Your task to perform on an android device: Go to Yahoo.com Image 0: 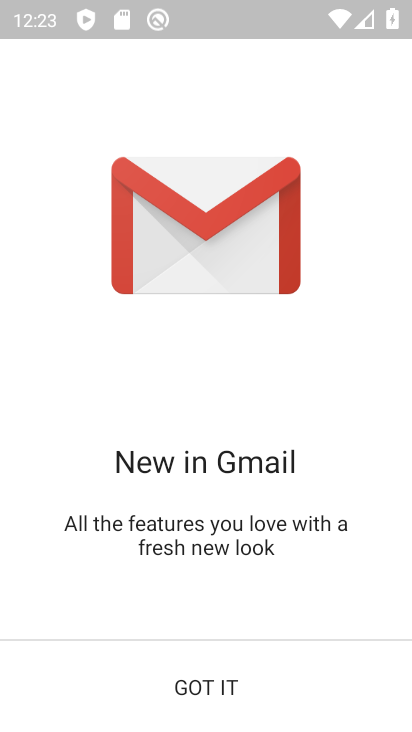
Step 0: press home button
Your task to perform on an android device: Go to Yahoo.com Image 1: 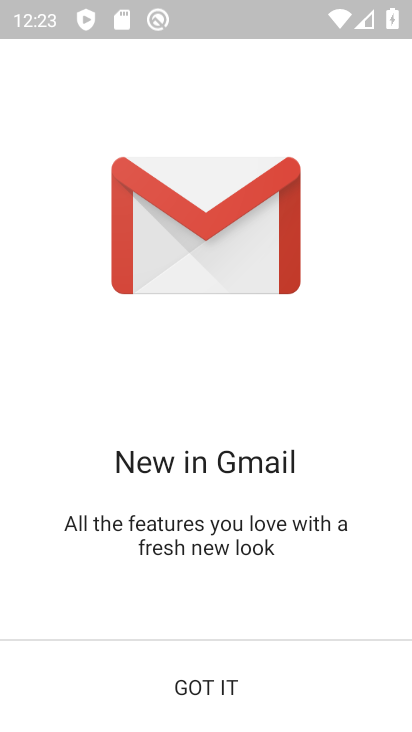
Step 1: press home button
Your task to perform on an android device: Go to Yahoo.com Image 2: 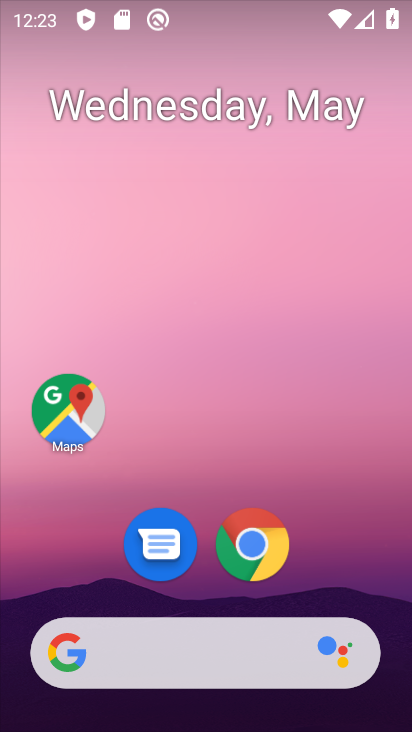
Step 2: click (262, 537)
Your task to perform on an android device: Go to Yahoo.com Image 3: 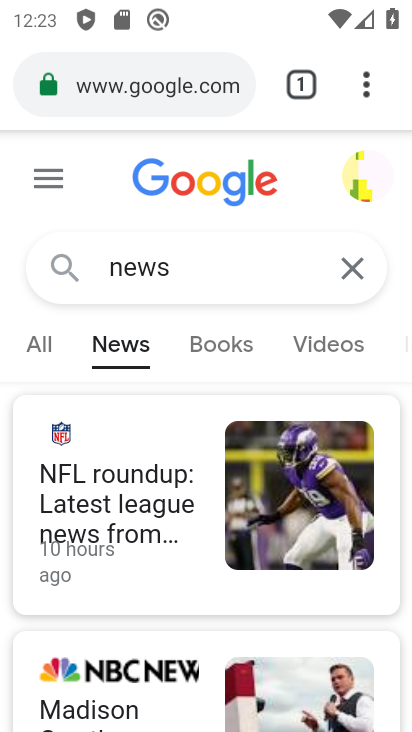
Step 3: click (105, 92)
Your task to perform on an android device: Go to Yahoo.com Image 4: 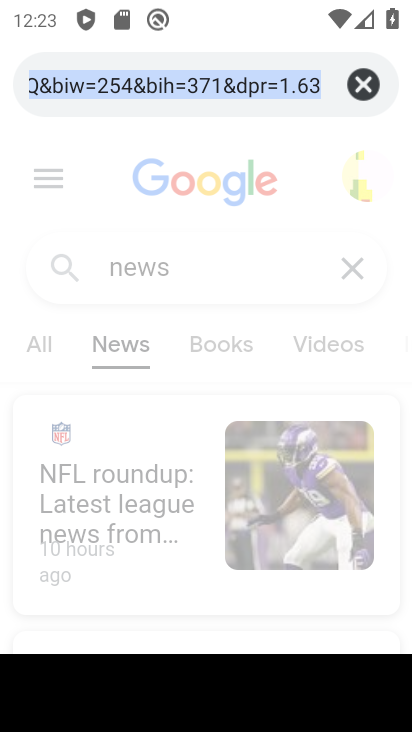
Step 4: type "yahoo.com"
Your task to perform on an android device: Go to Yahoo.com Image 5: 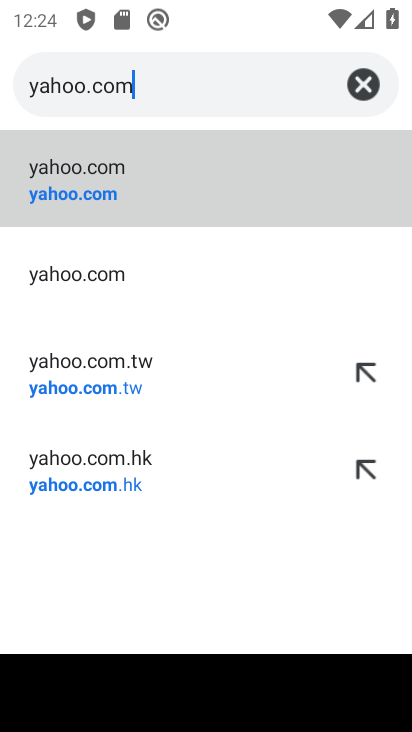
Step 5: click (83, 199)
Your task to perform on an android device: Go to Yahoo.com Image 6: 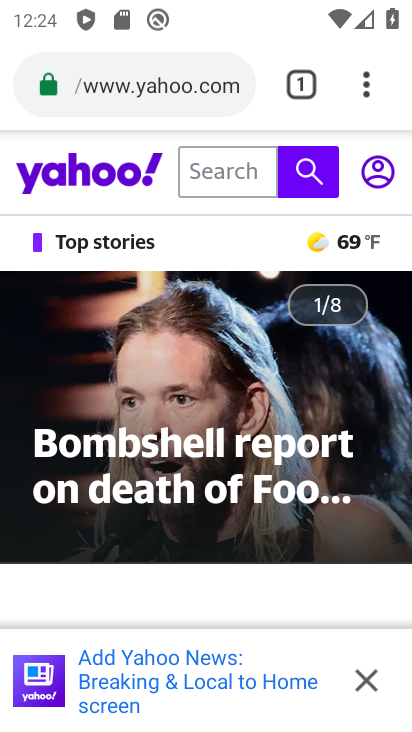
Step 6: task complete